Your task to perform on an android device: turn on data saver in the chrome app Image 0: 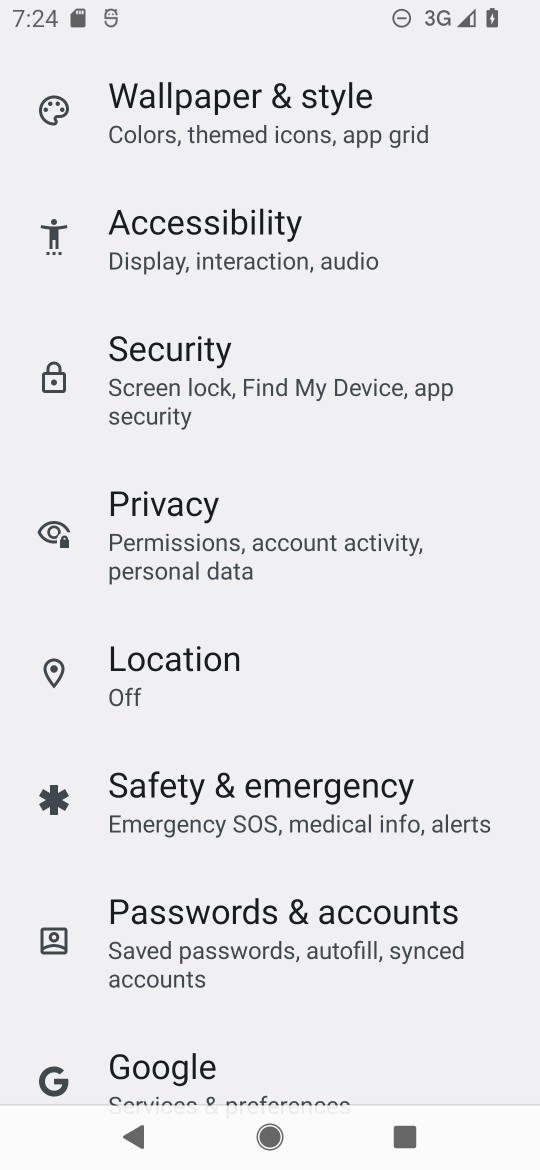
Step 0: press home button
Your task to perform on an android device: turn on data saver in the chrome app Image 1: 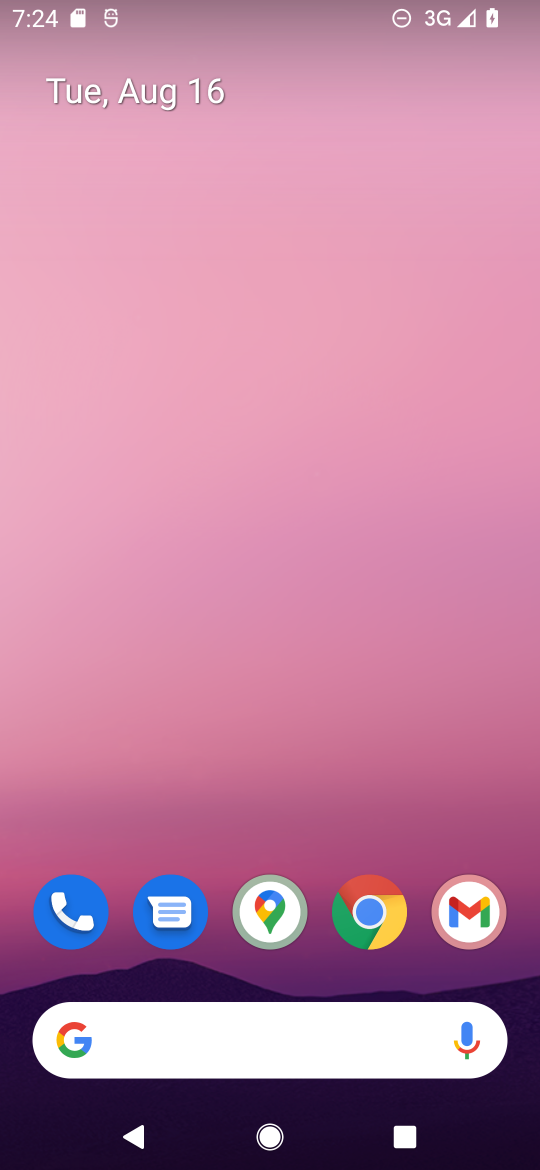
Step 1: click (371, 916)
Your task to perform on an android device: turn on data saver in the chrome app Image 2: 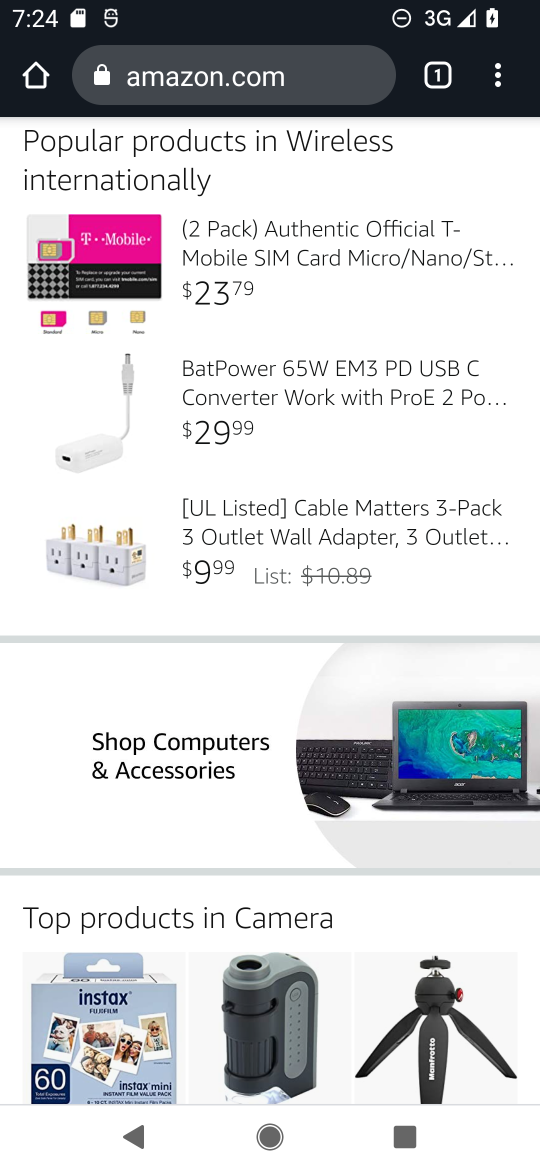
Step 2: click (492, 85)
Your task to perform on an android device: turn on data saver in the chrome app Image 3: 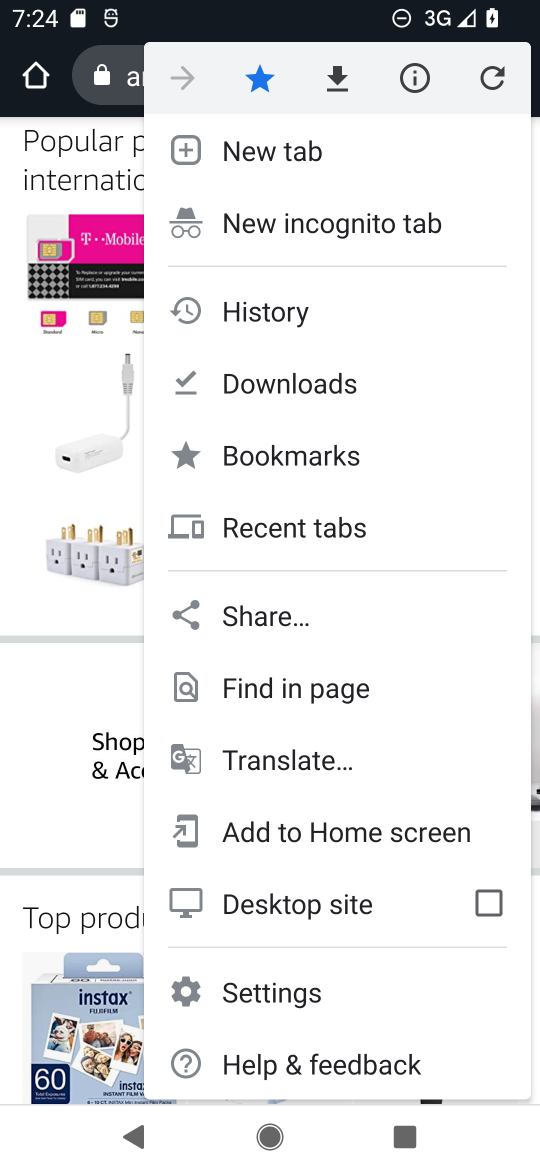
Step 3: click (278, 990)
Your task to perform on an android device: turn on data saver in the chrome app Image 4: 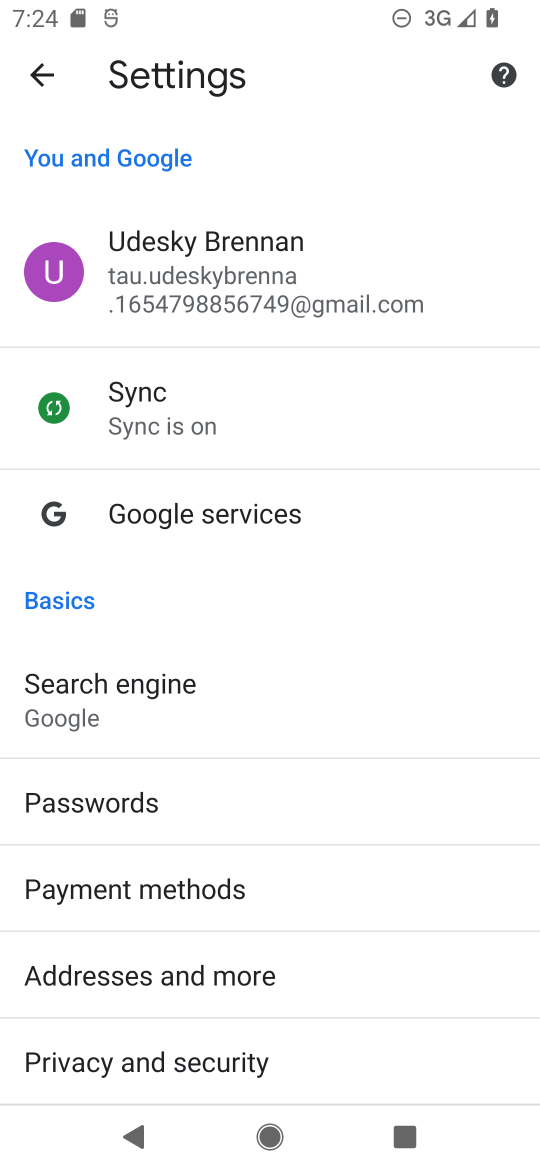
Step 4: drag from (351, 955) to (386, 401)
Your task to perform on an android device: turn on data saver in the chrome app Image 5: 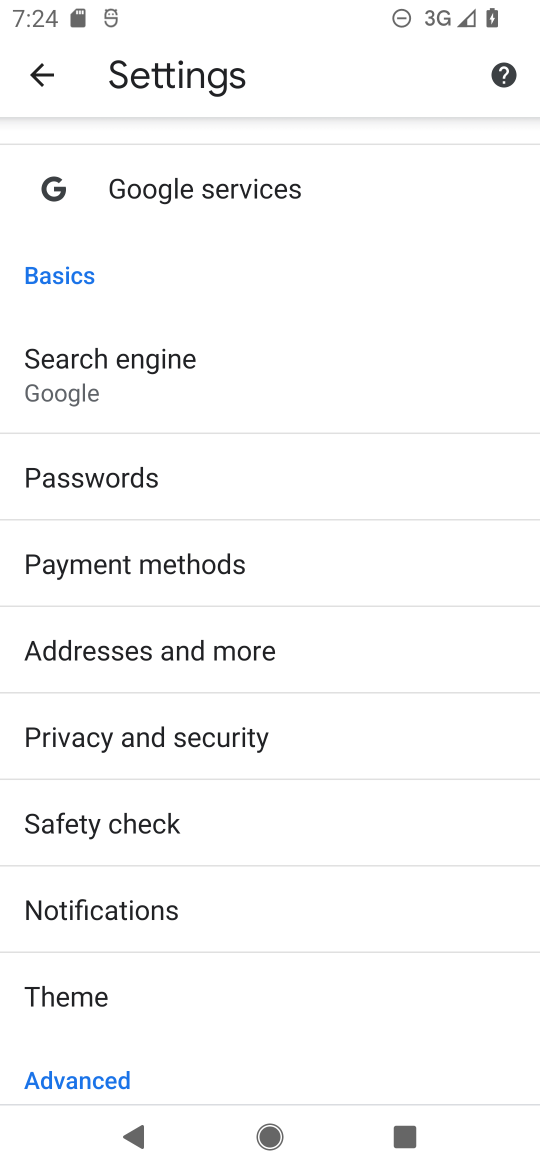
Step 5: drag from (297, 1038) to (309, 331)
Your task to perform on an android device: turn on data saver in the chrome app Image 6: 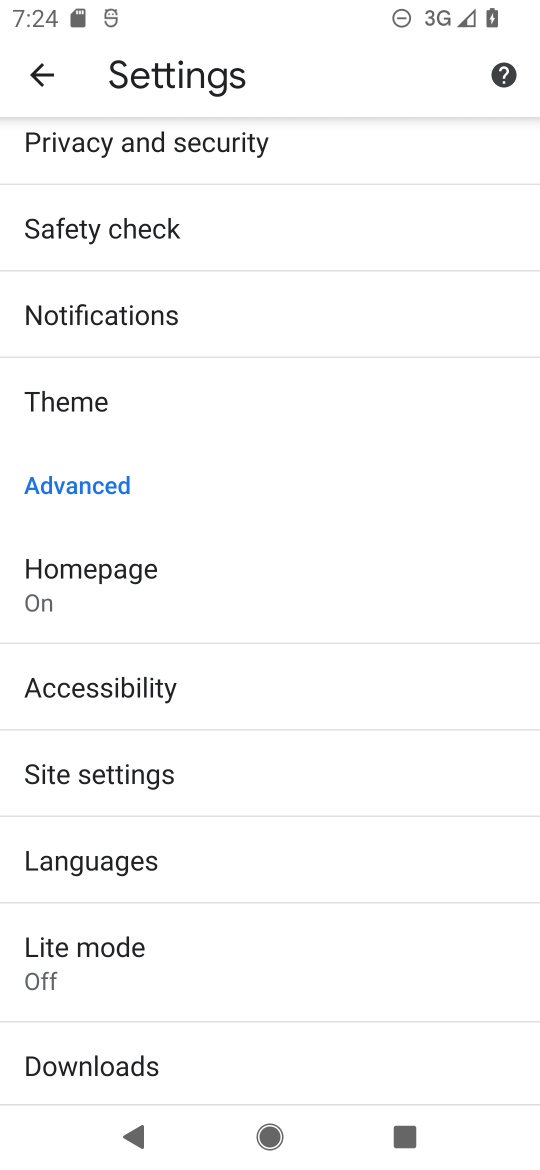
Step 6: click (61, 948)
Your task to perform on an android device: turn on data saver in the chrome app Image 7: 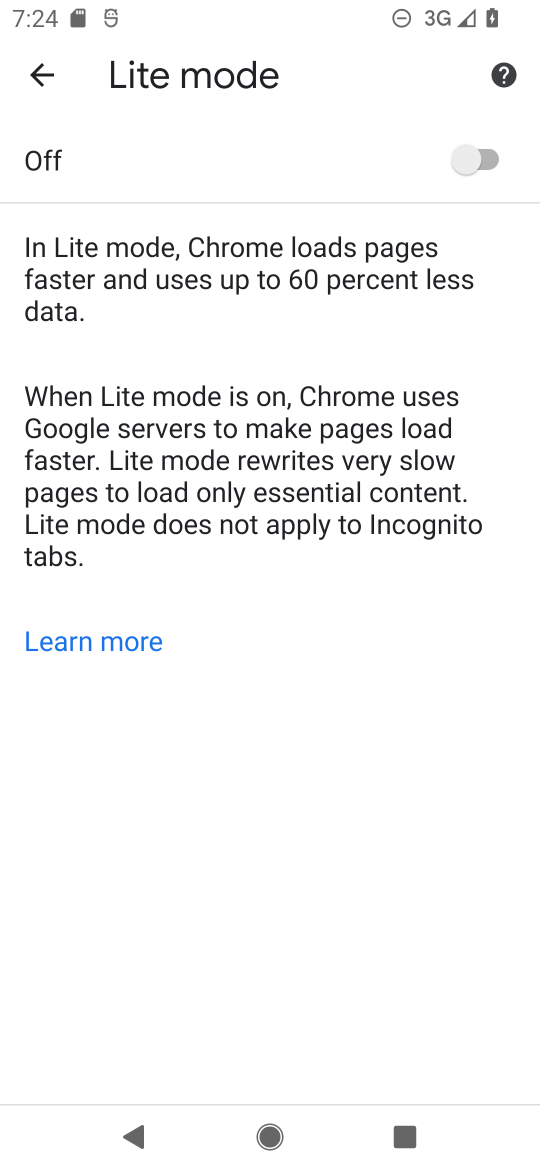
Step 7: click (490, 164)
Your task to perform on an android device: turn on data saver in the chrome app Image 8: 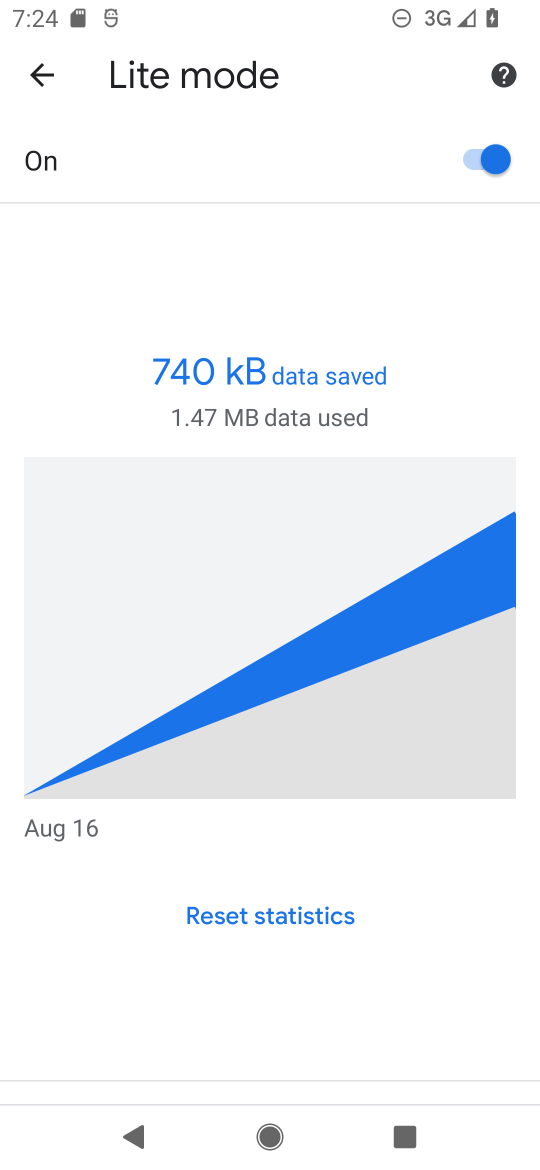
Step 8: task complete